Your task to perform on an android device: Open ESPN.com Image 0: 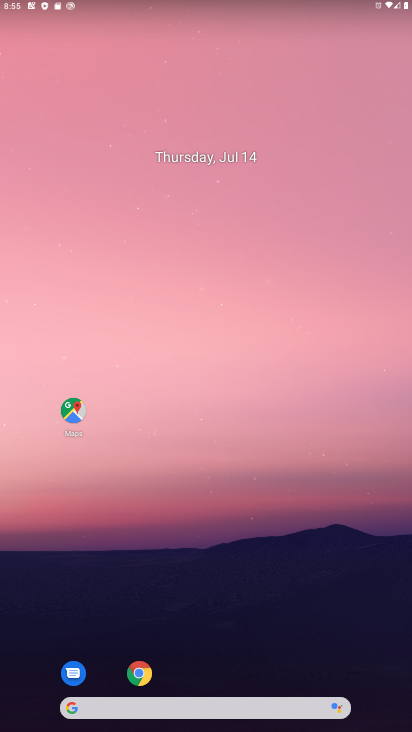
Step 0: click (141, 673)
Your task to perform on an android device: Open ESPN.com Image 1: 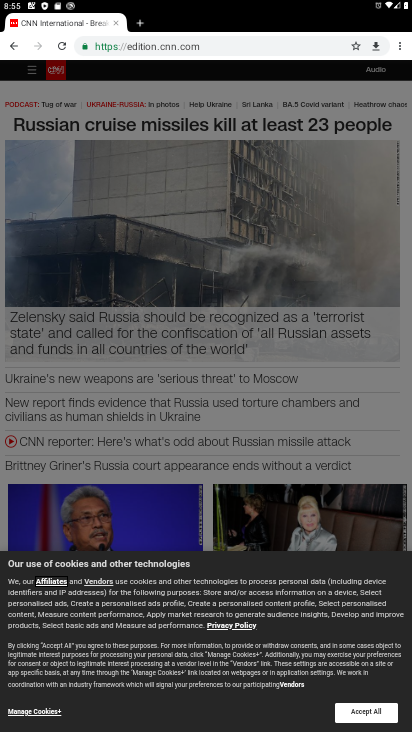
Step 1: click (295, 46)
Your task to perform on an android device: Open ESPN.com Image 2: 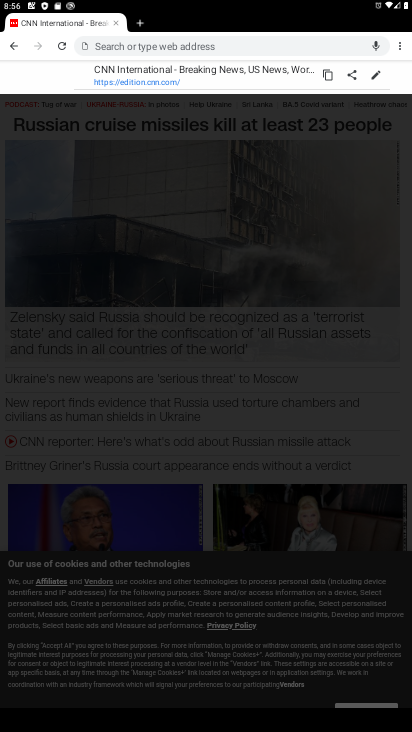
Step 2: type "ESPN.com"
Your task to perform on an android device: Open ESPN.com Image 3: 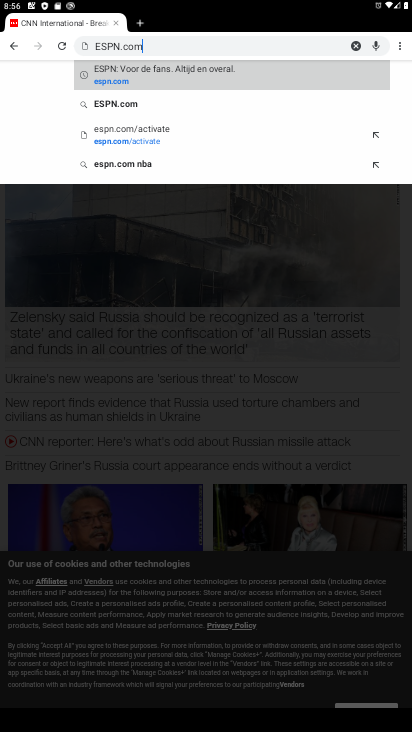
Step 3: click (124, 106)
Your task to perform on an android device: Open ESPN.com Image 4: 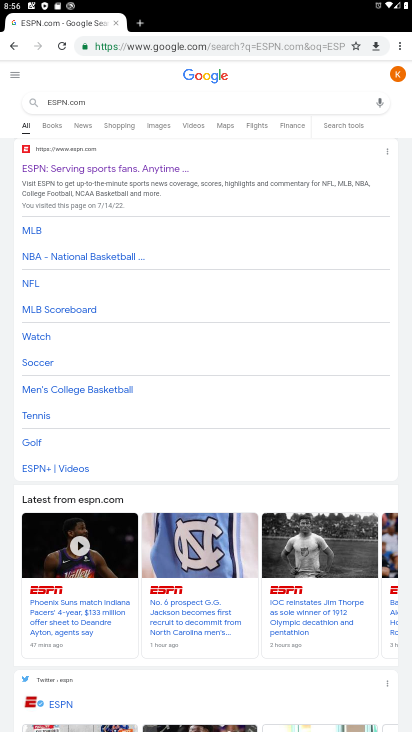
Step 4: click (49, 175)
Your task to perform on an android device: Open ESPN.com Image 5: 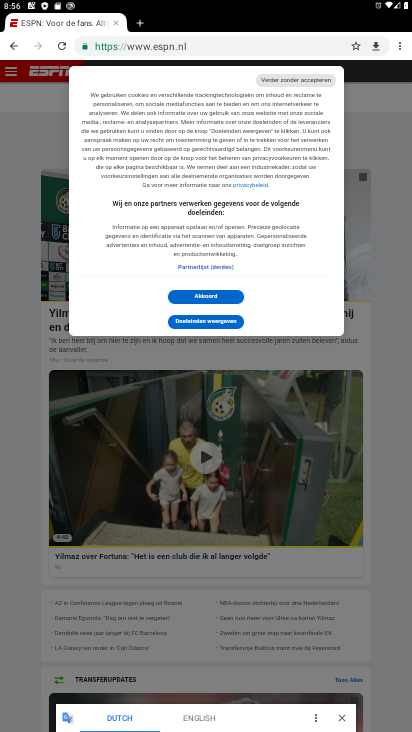
Step 5: click (218, 297)
Your task to perform on an android device: Open ESPN.com Image 6: 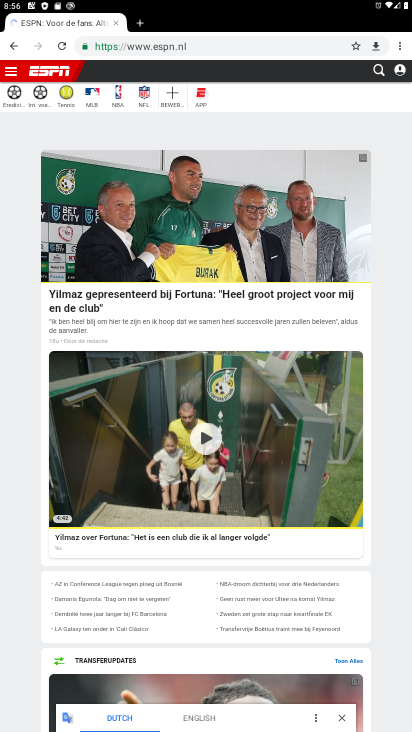
Step 6: task complete